Your task to perform on an android device: Open calendar and show me the first week of next month Image 0: 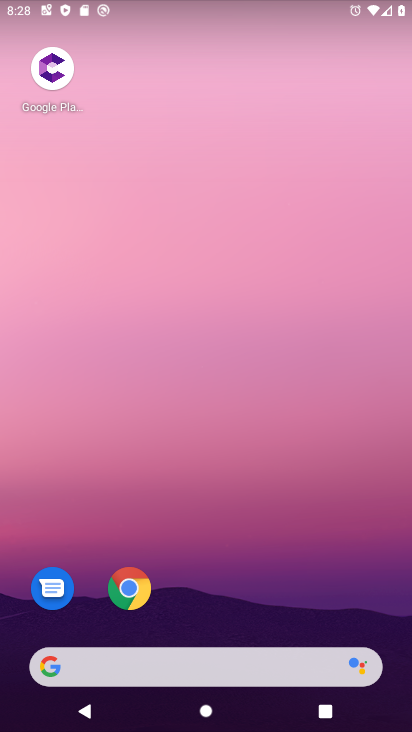
Step 0: drag from (239, 728) to (185, 7)
Your task to perform on an android device: Open calendar and show me the first week of next month Image 1: 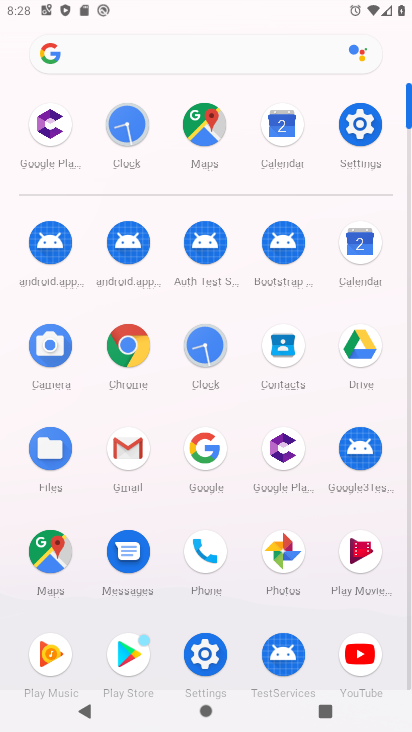
Step 1: click (364, 240)
Your task to perform on an android device: Open calendar and show me the first week of next month Image 2: 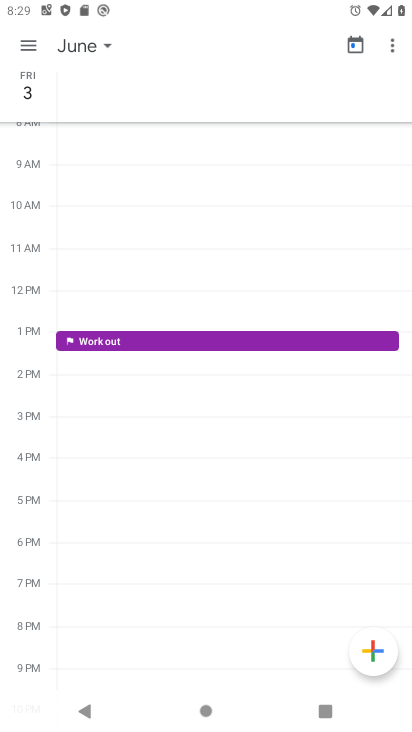
Step 2: click (88, 44)
Your task to perform on an android device: Open calendar and show me the first week of next month Image 3: 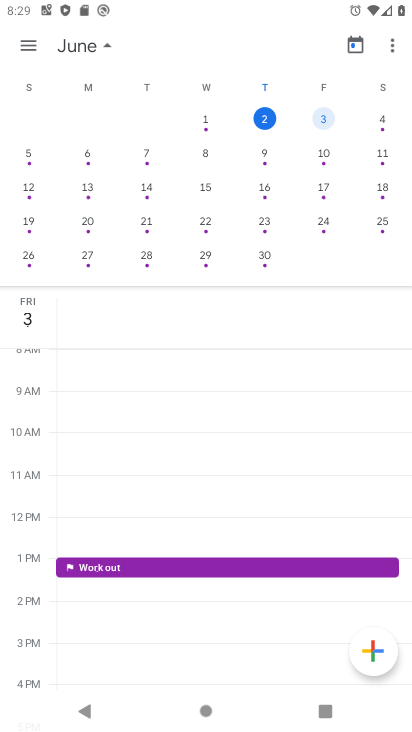
Step 3: drag from (361, 202) to (7, 156)
Your task to perform on an android device: Open calendar and show me the first week of next month Image 4: 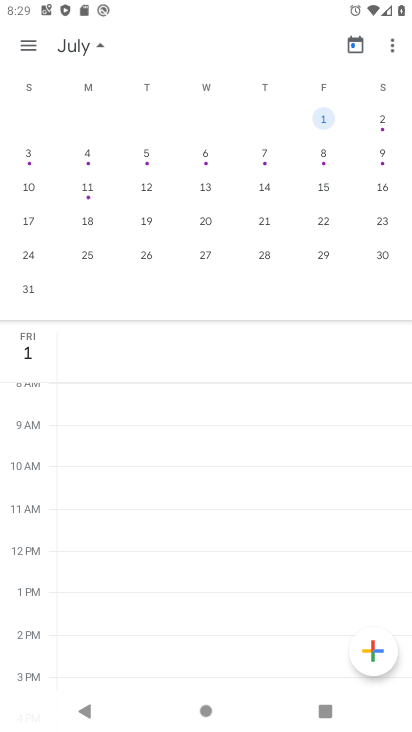
Step 4: click (29, 43)
Your task to perform on an android device: Open calendar and show me the first week of next month Image 5: 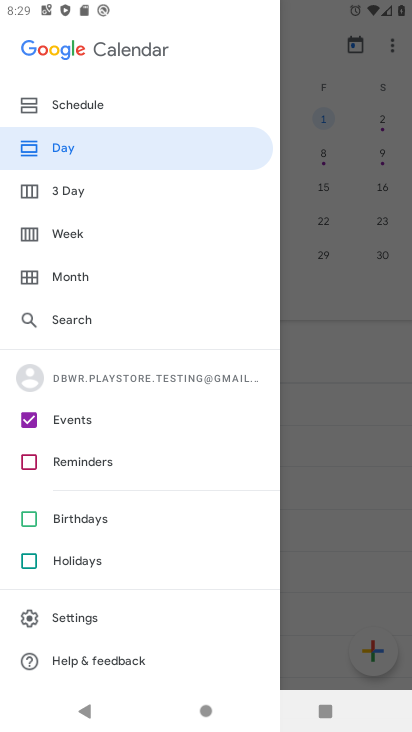
Step 5: click (58, 227)
Your task to perform on an android device: Open calendar and show me the first week of next month Image 6: 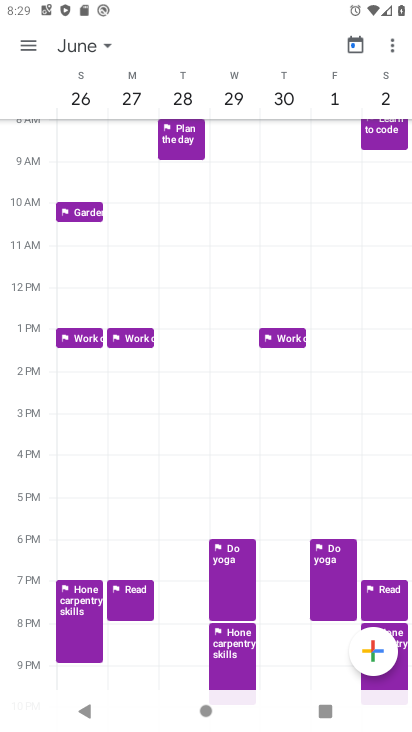
Step 6: task complete